Your task to perform on an android device: Go to network settings Image 0: 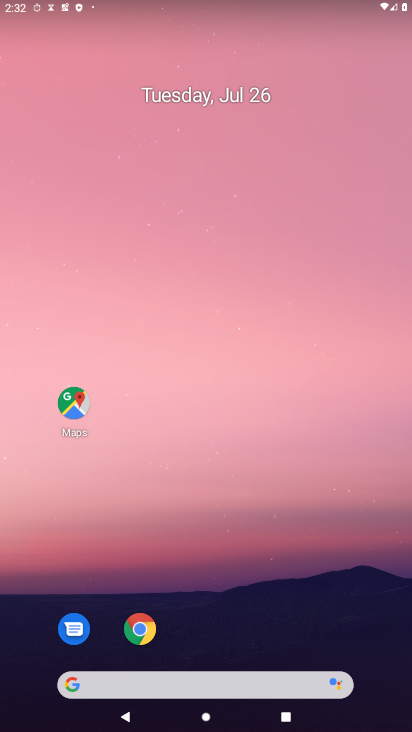
Step 0: drag from (250, 589) to (246, 20)
Your task to perform on an android device: Go to network settings Image 1: 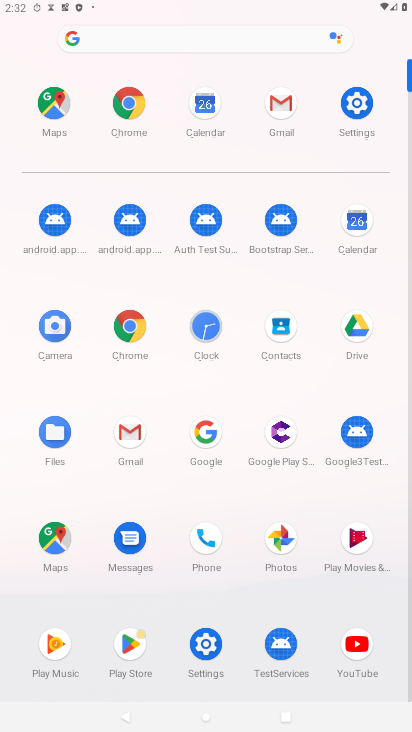
Step 1: click (347, 101)
Your task to perform on an android device: Go to network settings Image 2: 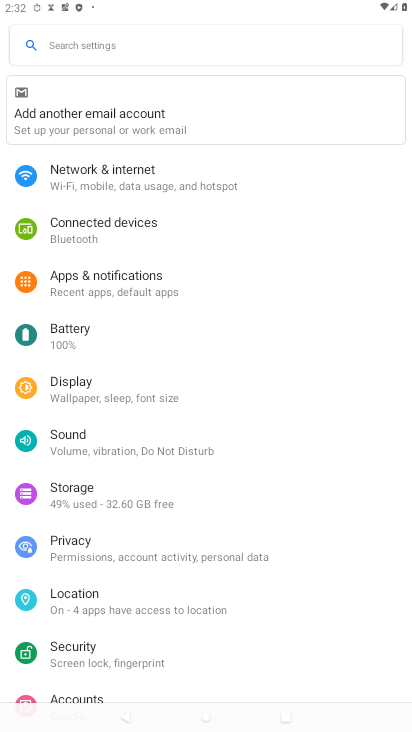
Step 2: click (101, 174)
Your task to perform on an android device: Go to network settings Image 3: 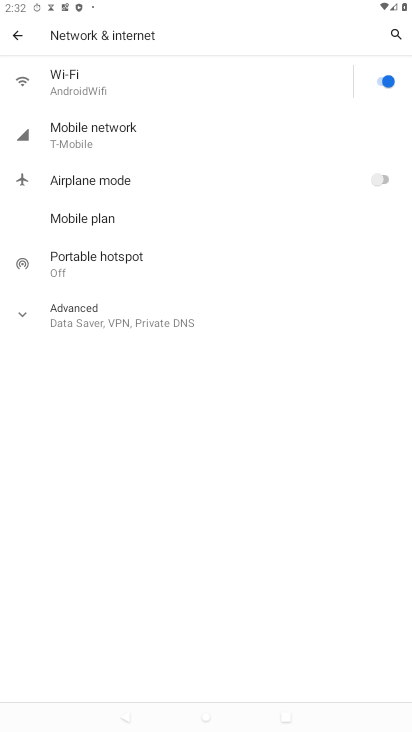
Step 3: task complete